Your task to perform on an android device: see creations saved in the google photos Image 0: 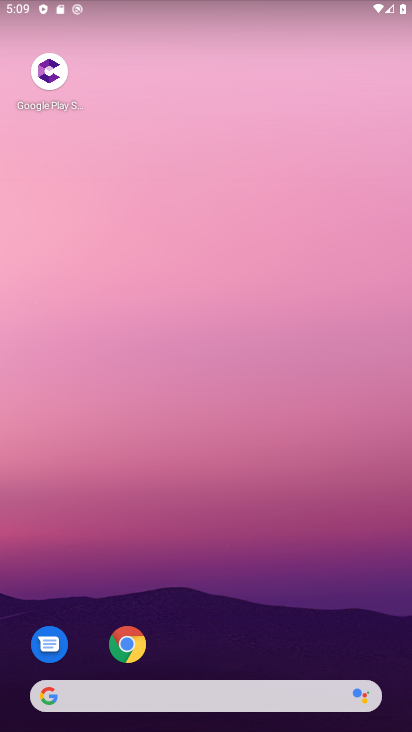
Step 0: drag from (243, 647) to (264, 40)
Your task to perform on an android device: see creations saved in the google photos Image 1: 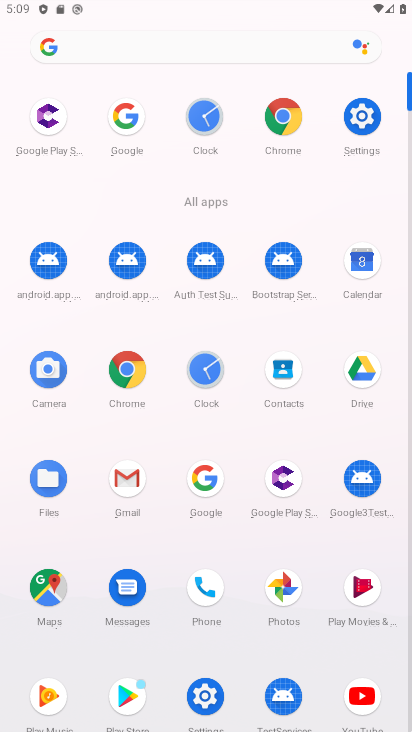
Step 1: click (284, 586)
Your task to perform on an android device: see creations saved in the google photos Image 2: 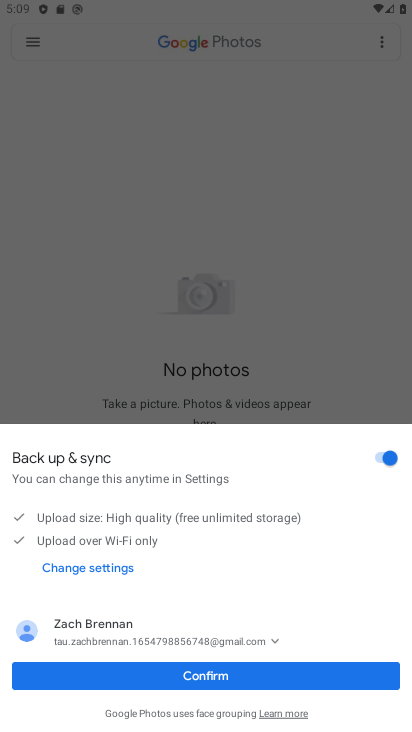
Step 2: click (201, 669)
Your task to perform on an android device: see creations saved in the google photos Image 3: 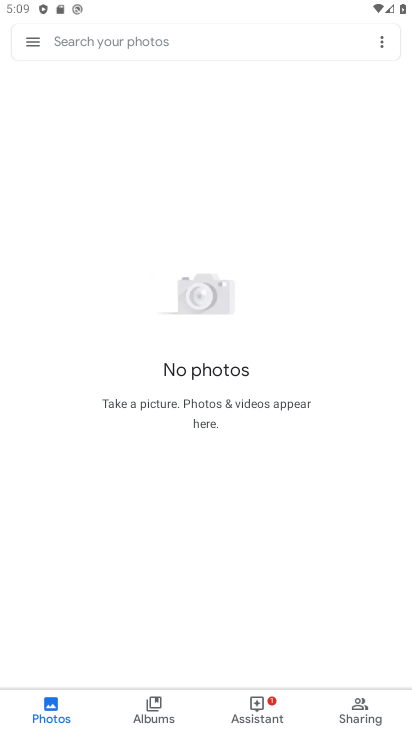
Step 3: click (153, 697)
Your task to perform on an android device: see creations saved in the google photos Image 4: 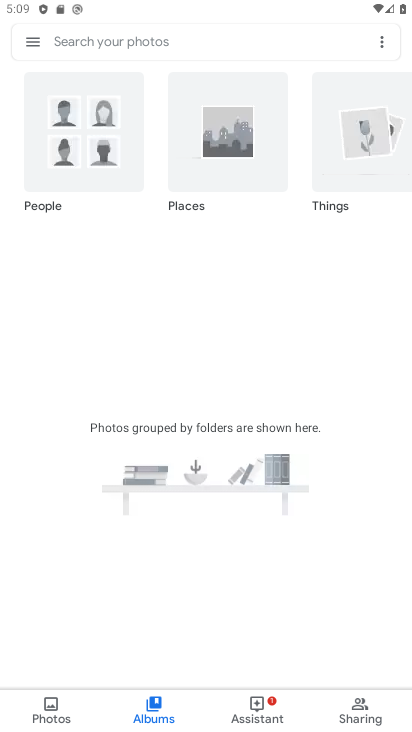
Step 4: click (254, 702)
Your task to perform on an android device: see creations saved in the google photos Image 5: 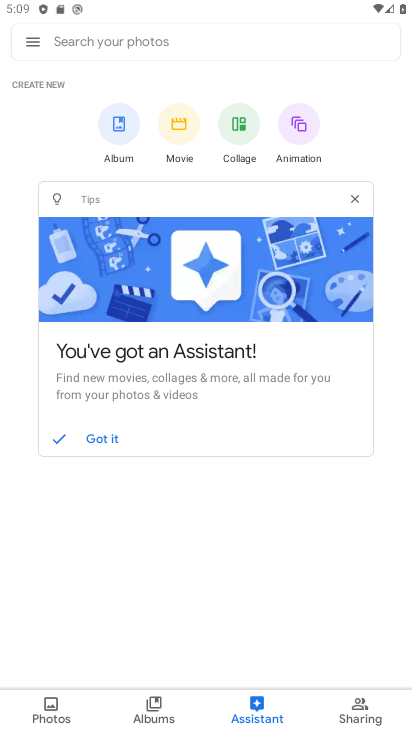
Step 5: click (366, 708)
Your task to perform on an android device: see creations saved in the google photos Image 6: 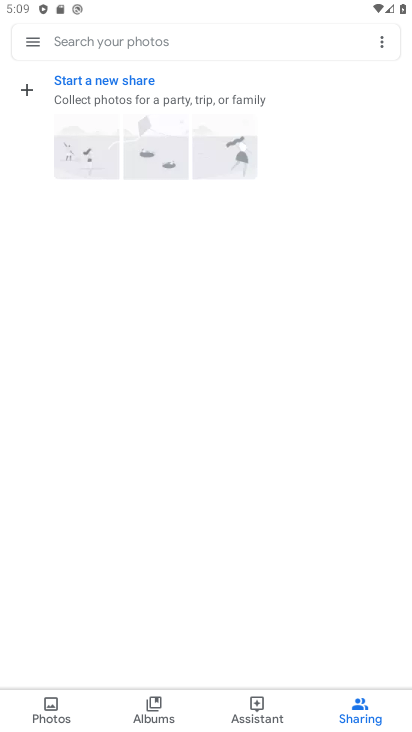
Step 6: click (40, 48)
Your task to perform on an android device: see creations saved in the google photos Image 7: 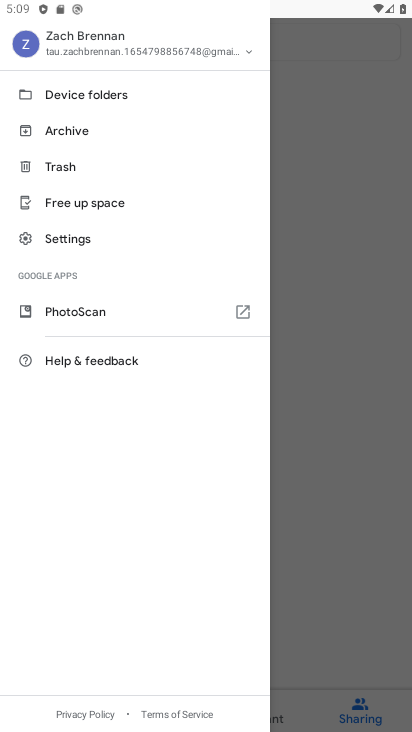
Step 7: click (80, 238)
Your task to perform on an android device: see creations saved in the google photos Image 8: 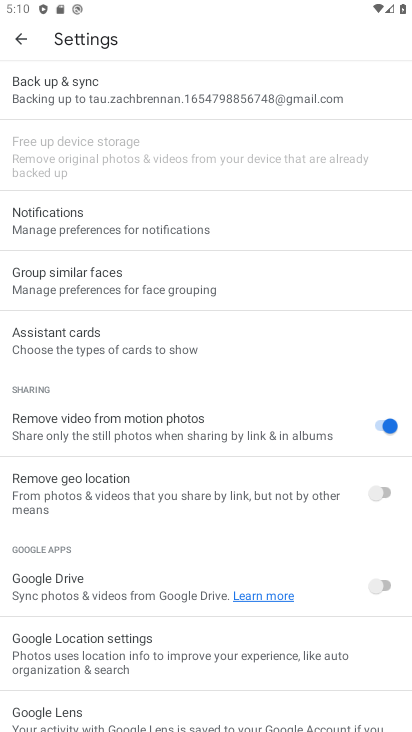
Step 8: click (106, 227)
Your task to perform on an android device: see creations saved in the google photos Image 9: 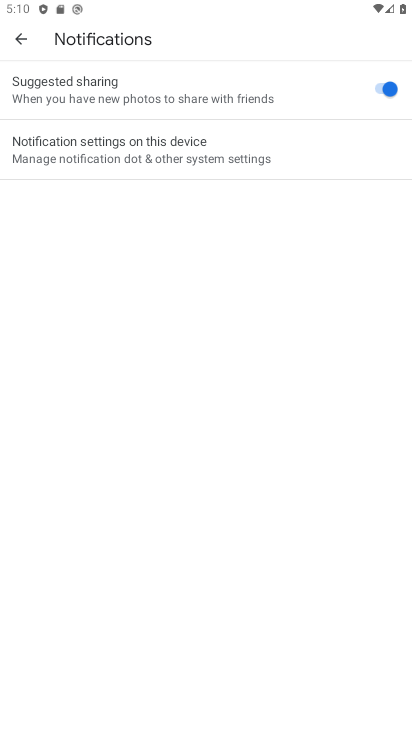
Step 9: press back button
Your task to perform on an android device: see creations saved in the google photos Image 10: 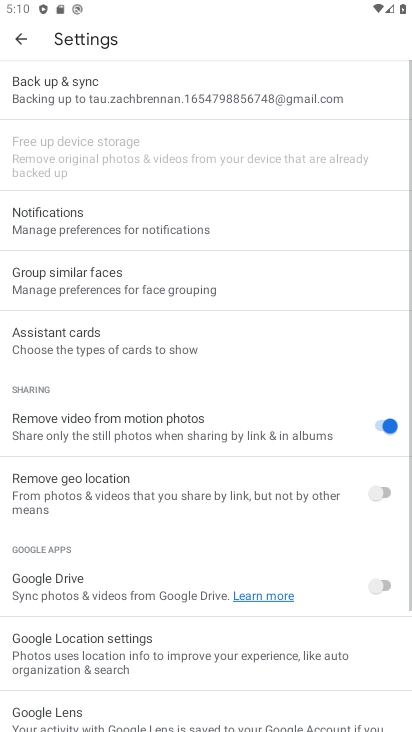
Step 10: click (133, 298)
Your task to perform on an android device: see creations saved in the google photos Image 11: 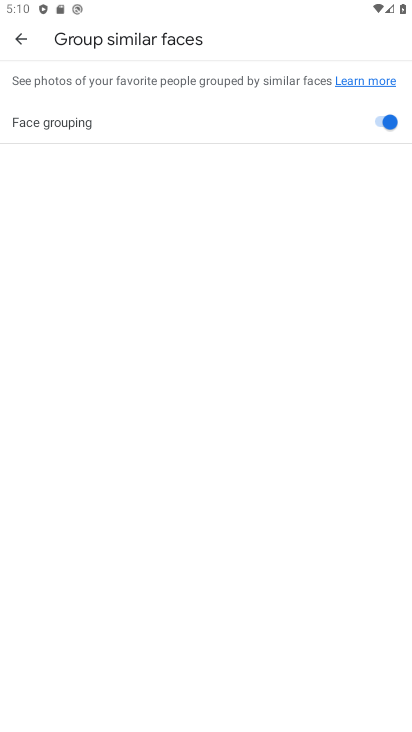
Step 11: press back button
Your task to perform on an android device: see creations saved in the google photos Image 12: 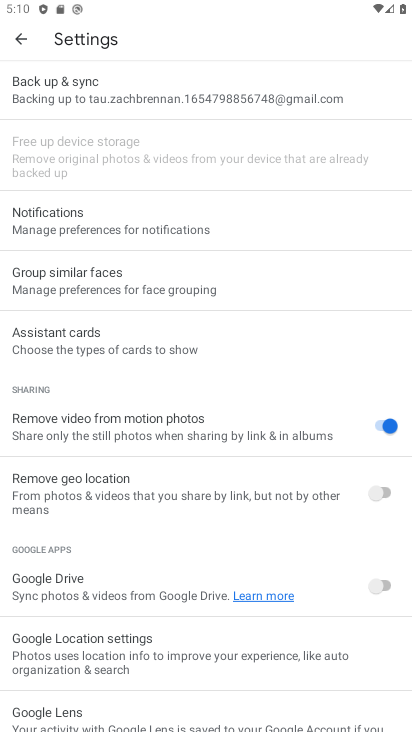
Step 12: click (140, 352)
Your task to perform on an android device: see creations saved in the google photos Image 13: 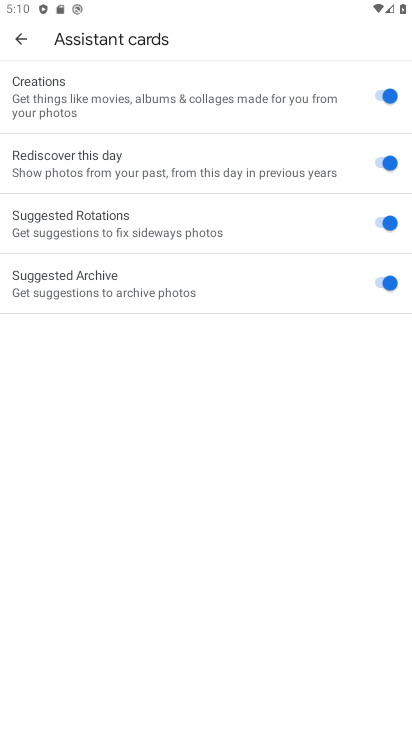
Step 13: press back button
Your task to perform on an android device: see creations saved in the google photos Image 14: 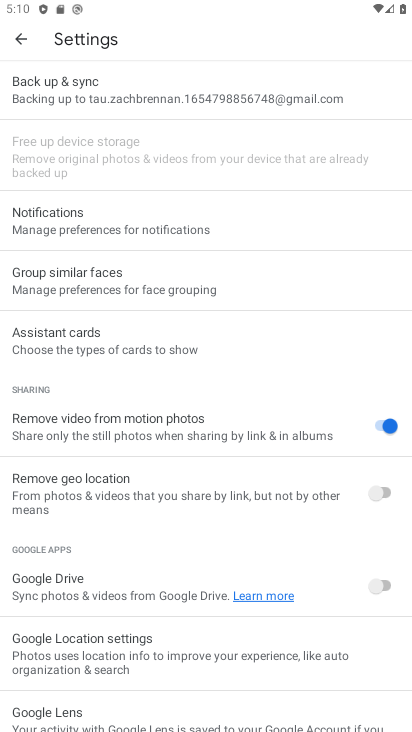
Step 14: drag from (108, 539) to (145, 451)
Your task to perform on an android device: see creations saved in the google photos Image 15: 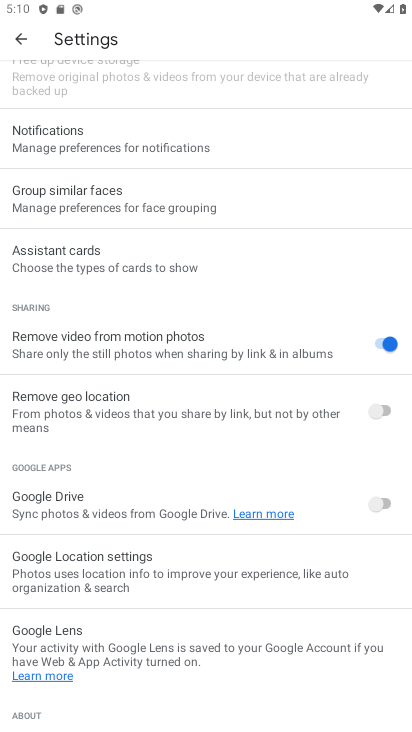
Step 15: drag from (113, 627) to (155, 489)
Your task to perform on an android device: see creations saved in the google photos Image 16: 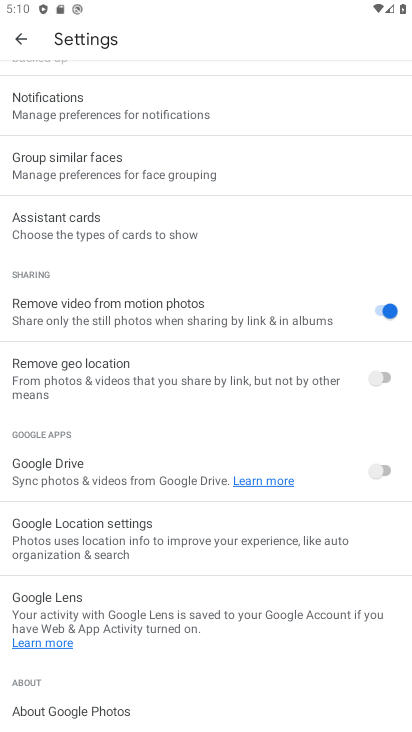
Step 16: press back button
Your task to perform on an android device: see creations saved in the google photos Image 17: 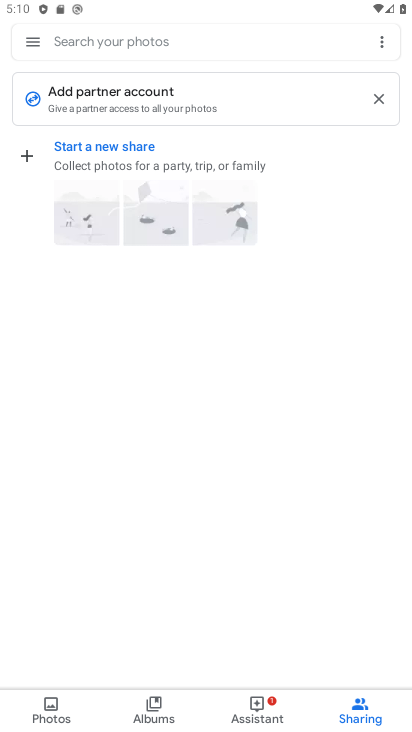
Step 17: click (387, 39)
Your task to perform on an android device: see creations saved in the google photos Image 18: 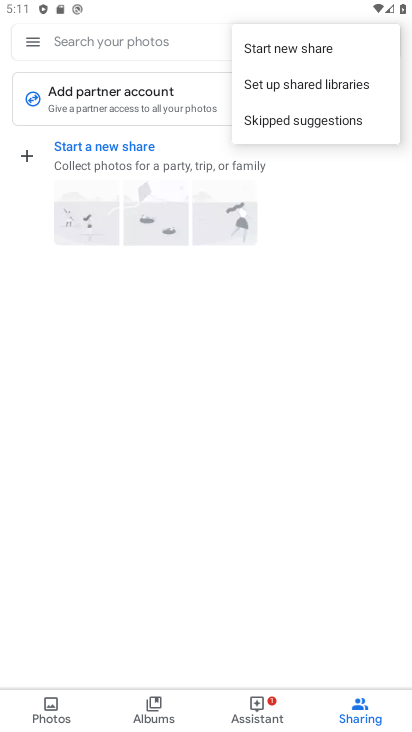
Step 18: click (276, 362)
Your task to perform on an android device: see creations saved in the google photos Image 19: 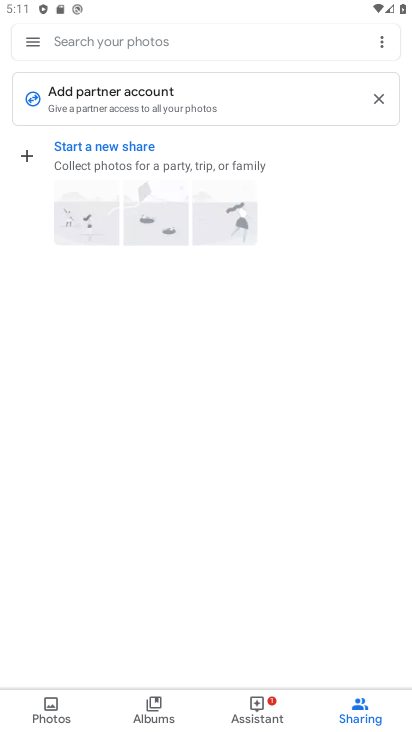
Step 19: task complete